Your task to perform on an android device: Open calendar and show me the second week of next month Image 0: 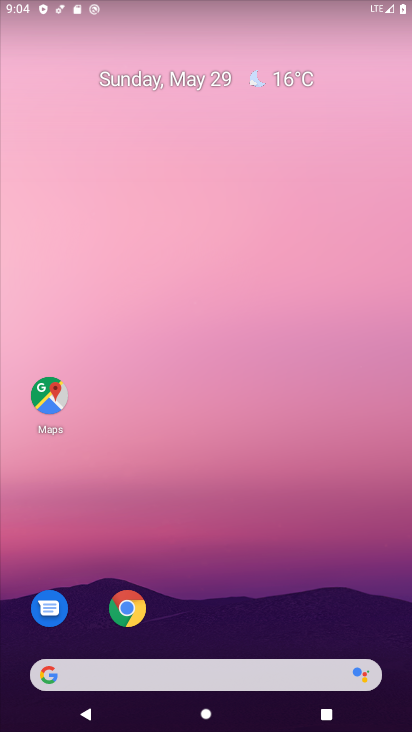
Step 0: drag from (176, 626) to (139, 129)
Your task to perform on an android device: Open calendar and show me the second week of next month Image 1: 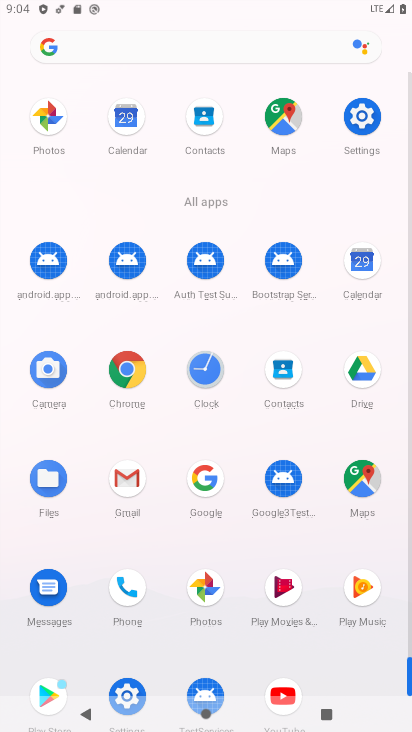
Step 1: click (383, 260)
Your task to perform on an android device: Open calendar and show me the second week of next month Image 2: 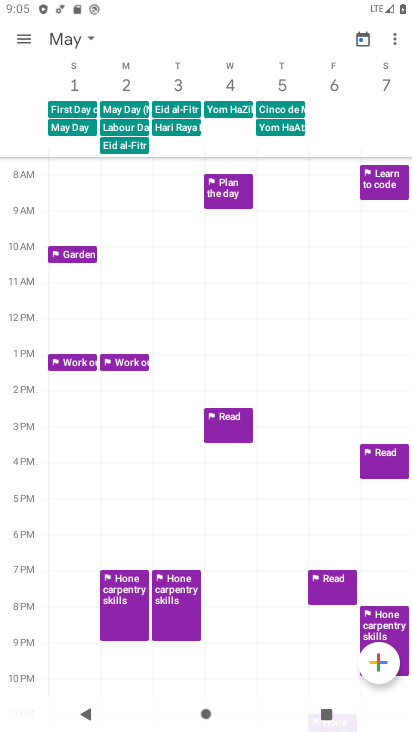
Step 2: click (59, 42)
Your task to perform on an android device: Open calendar and show me the second week of next month Image 3: 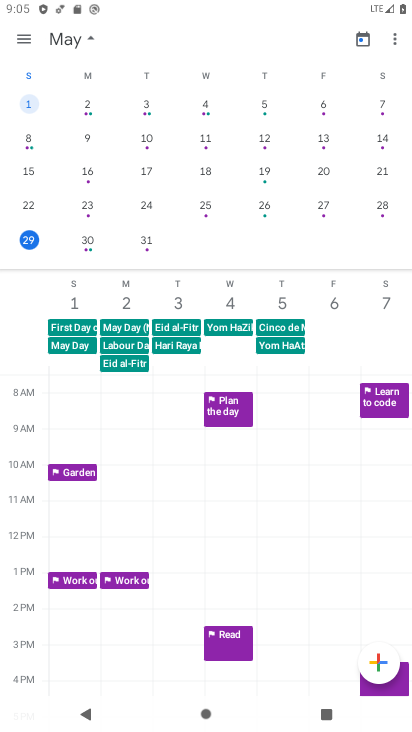
Step 3: drag from (369, 165) to (3, 149)
Your task to perform on an android device: Open calendar and show me the second week of next month Image 4: 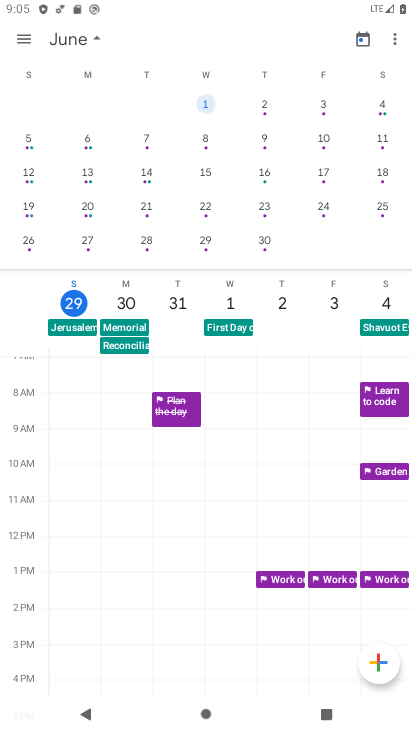
Step 4: click (35, 176)
Your task to perform on an android device: Open calendar and show me the second week of next month Image 5: 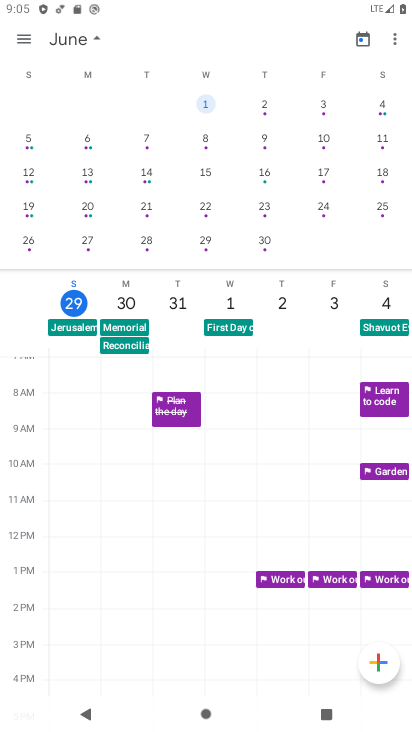
Step 5: click (30, 174)
Your task to perform on an android device: Open calendar and show me the second week of next month Image 6: 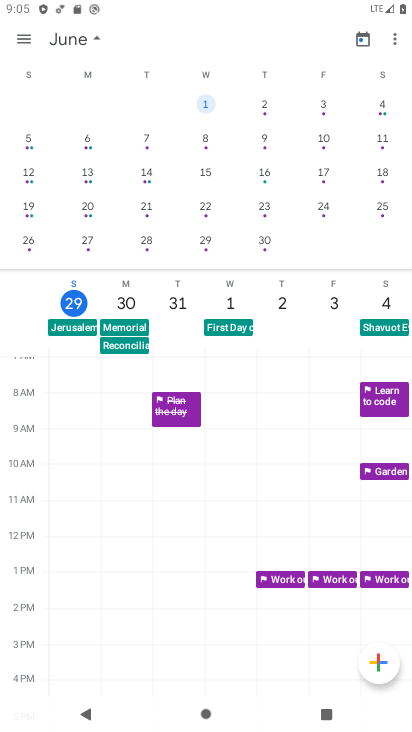
Step 6: click (31, 172)
Your task to perform on an android device: Open calendar and show me the second week of next month Image 7: 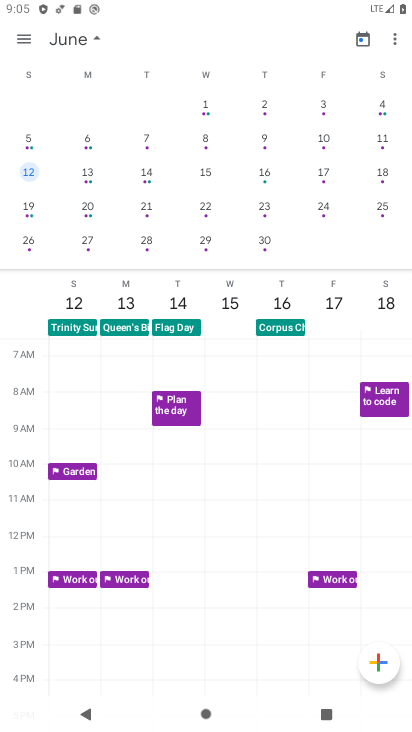
Step 7: task complete